Your task to perform on an android device: turn pop-ups on in chrome Image 0: 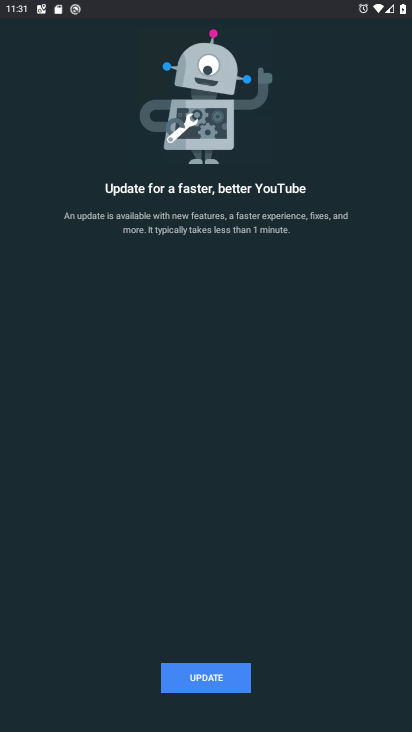
Step 0: press home button
Your task to perform on an android device: turn pop-ups on in chrome Image 1: 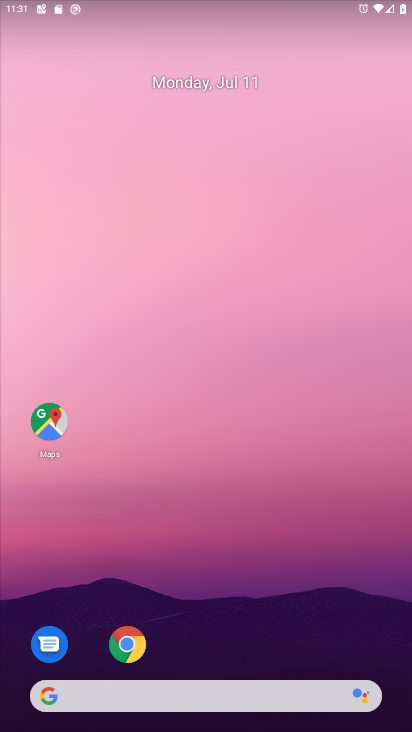
Step 1: click (124, 645)
Your task to perform on an android device: turn pop-ups on in chrome Image 2: 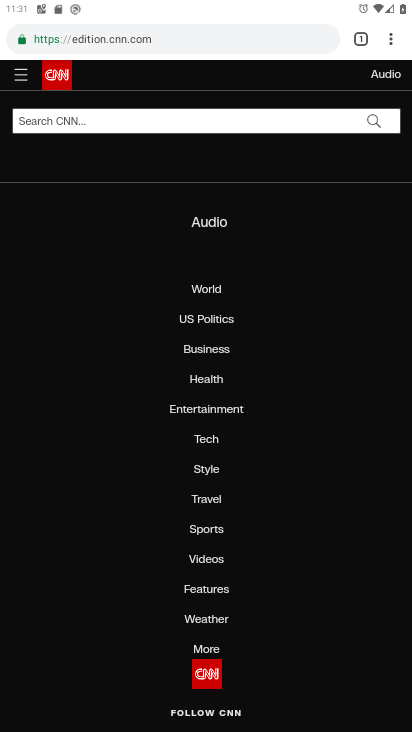
Step 2: click (391, 45)
Your task to perform on an android device: turn pop-ups on in chrome Image 3: 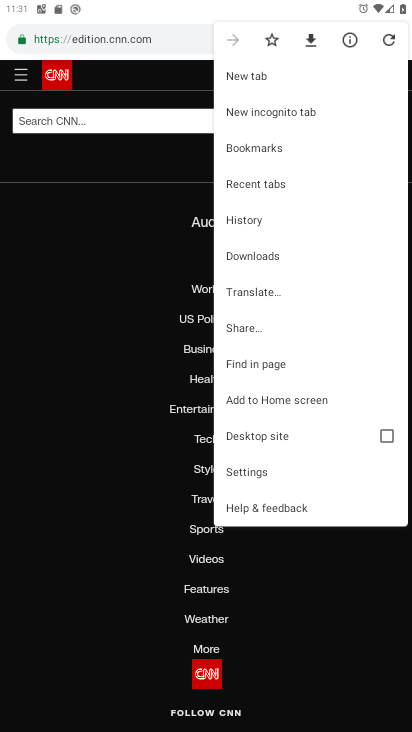
Step 3: click (273, 469)
Your task to perform on an android device: turn pop-ups on in chrome Image 4: 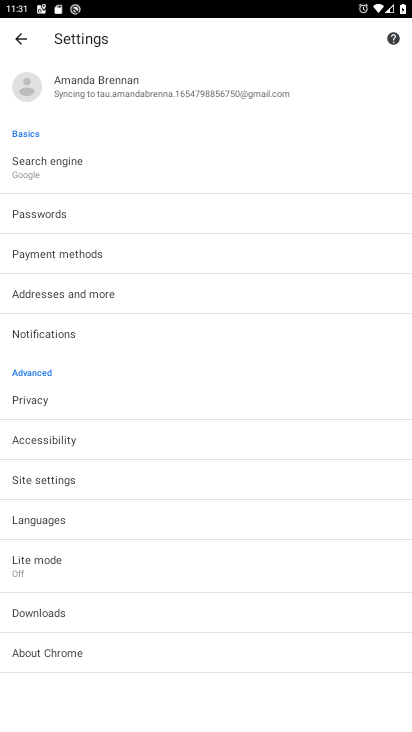
Step 4: click (69, 484)
Your task to perform on an android device: turn pop-ups on in chrome Image 5: 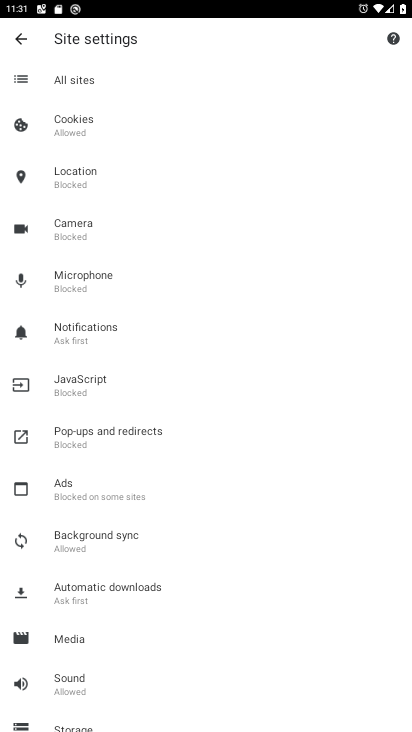
Step 5: click (128, 435)
Your task to perform on an android device: turn pop-ups on in chrome Image 6: 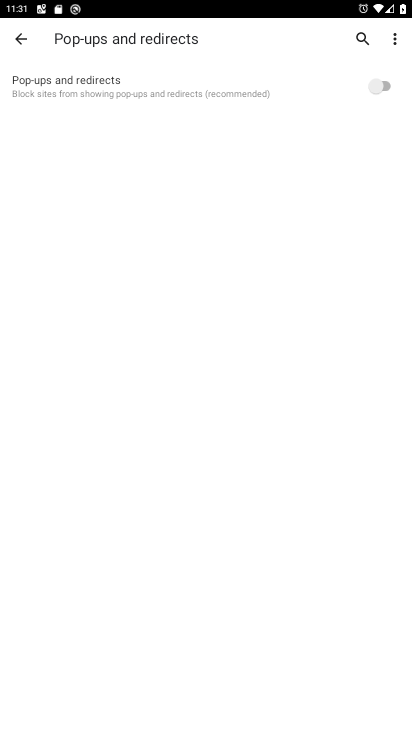
Step 6: click (385, 90)
Your task to perform on an android device: turn pop-ups on in chrome Image 7: 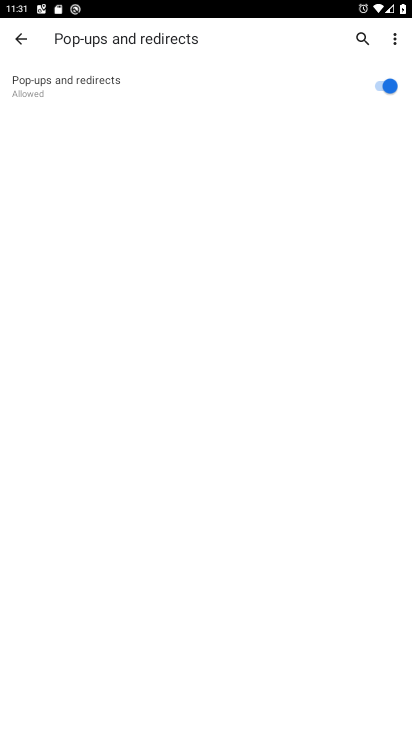
Step 7: task complete